Your task to perform on an android device: change keyboard looks Image 0: 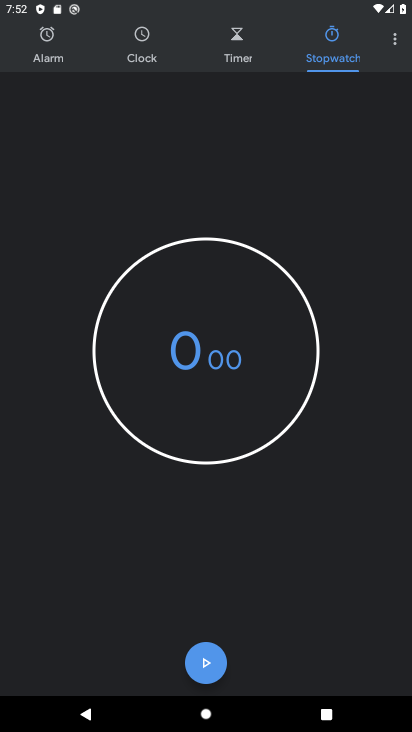
Step 0: press home button
Your task to perform on an android device: change keyboard looks Image 1: 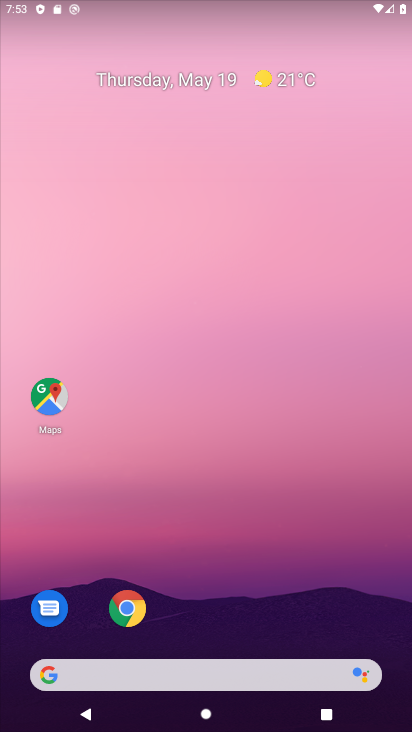
Step 1: drag from (215, 506) to (121, 156)
Your task to perform on an android device: change keyboard looks Image 2: 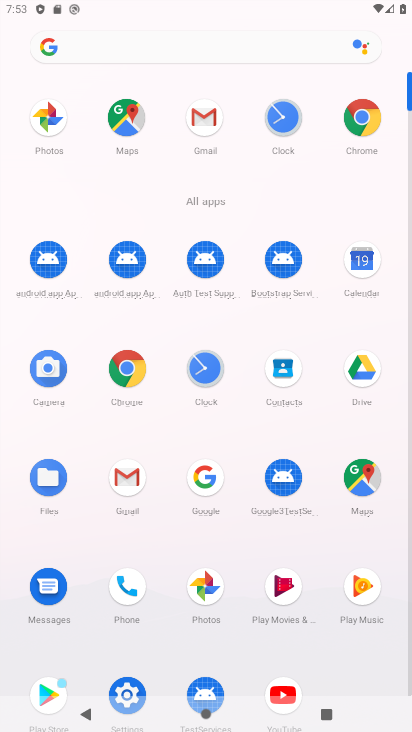
Step 2: click (125, 686)
Your task to perform on an android device: change keyboard looks Image 3: 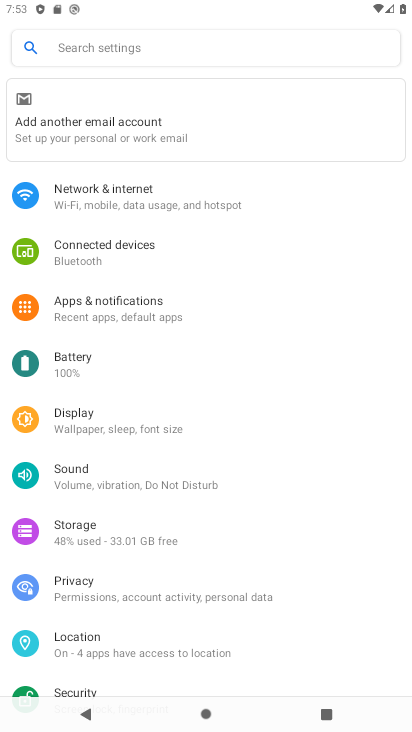
Step 3: drag from (158, 518) to (108, 197)
Your task to perform on an android device: change keyboard looks Image 4: 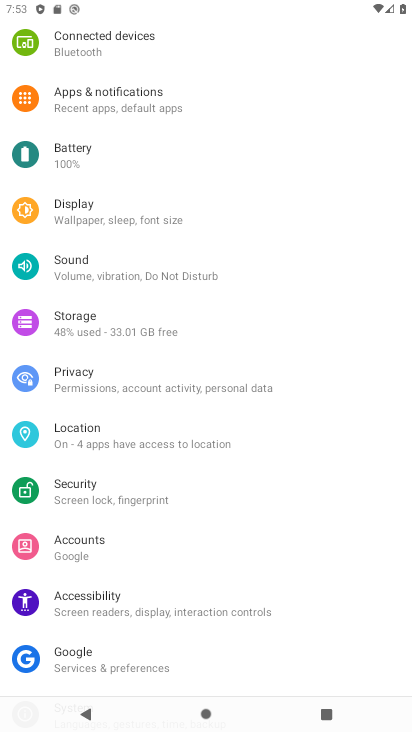
Step 4: drag from (237, 501) to (200, 106)
Your task to perform on an android device: change keyboard looks Image 5: 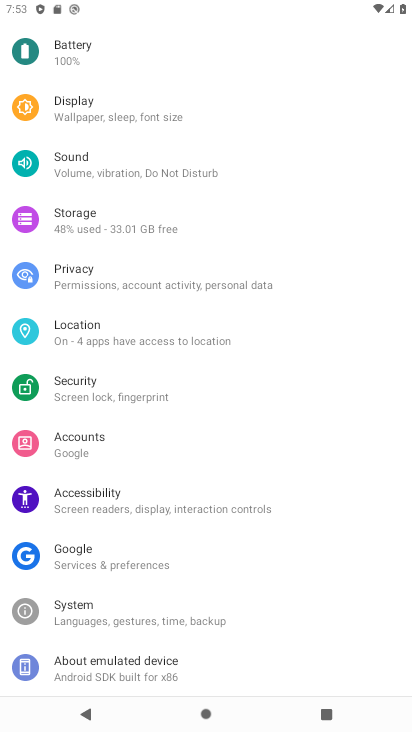
Step 5: drag from (252, 456) to (221, 234)
Your task to perform on an android device: change keyboard looks Image 6: 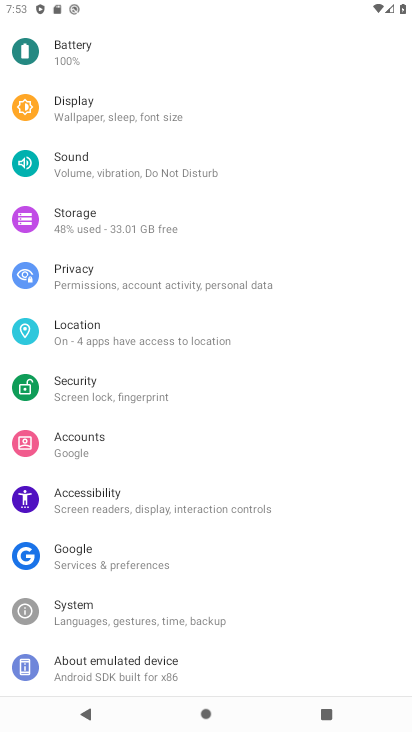
Step 6: drag from (172, 583) to (120, 214)
Your task to perform on an android device: change keyboard looks Image 7: 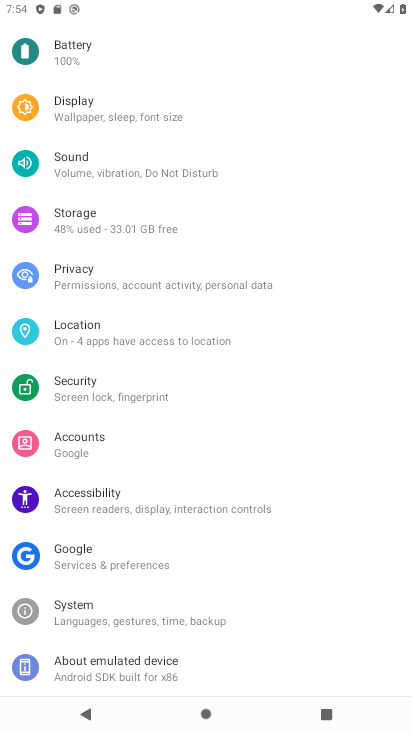
Step 7: click (81, 603)
Your task to perform on an android device: change keyboard looks Image 8: 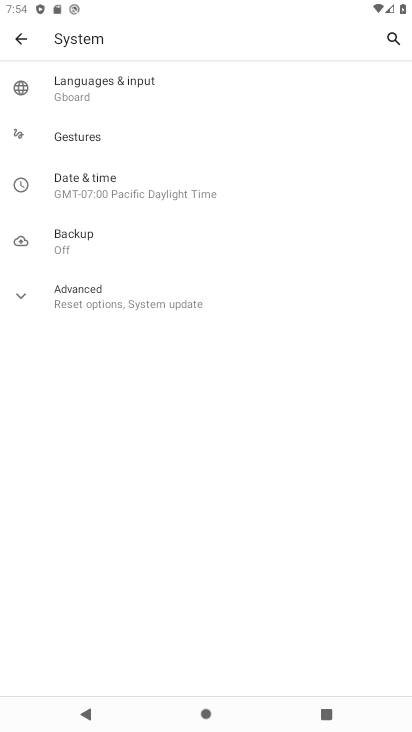
Step 8: click (72, 83)
Your task to perform on an android device: change keyboard looks Image 9: 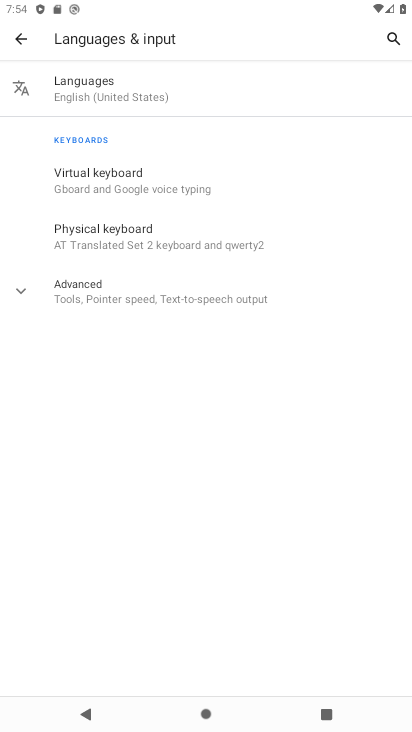
Step 9: click (90, 81)
Your task to perform on an android device: change keyboard looks Image 10: 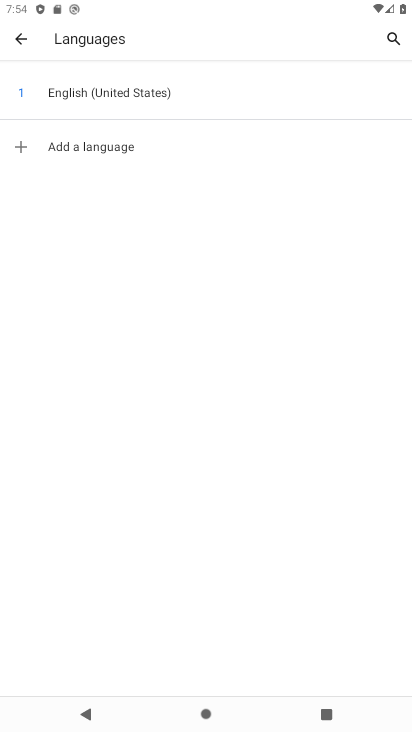
Step 10: click (9, 28)
Your task to perform on an android device: change keyboard looks Image 11: 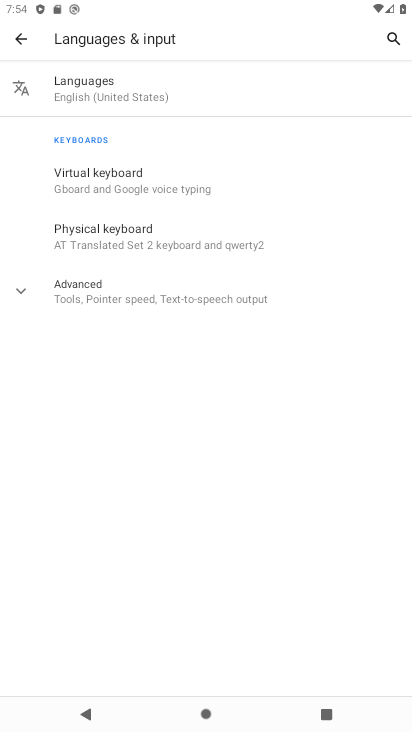
Step 11: click (111, 181)
Your task to perform on an android device: change keyboard looks Image 12: 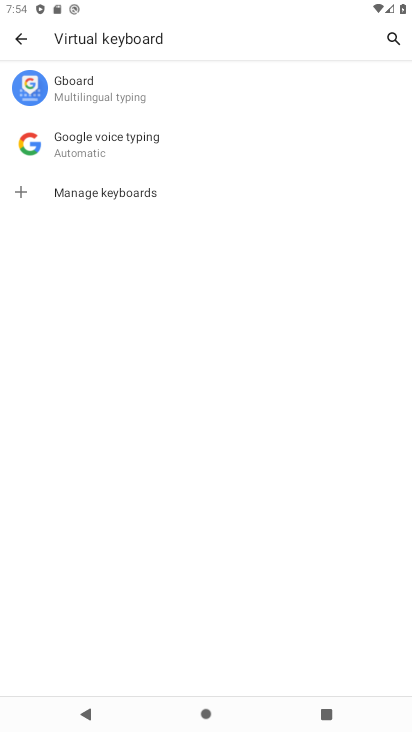
Step 12: click (86, 81)
Your task to perform on an android device: change keyboard looks Image 13: 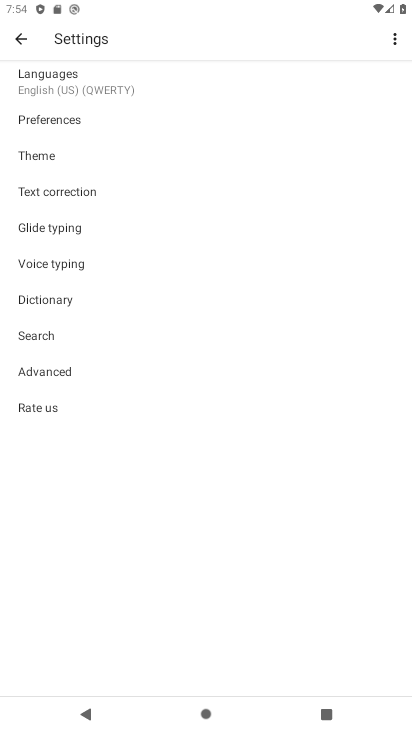
Step 13: click (24, 154)
Your task to perform on an android device: change keyboard looks Image 14: 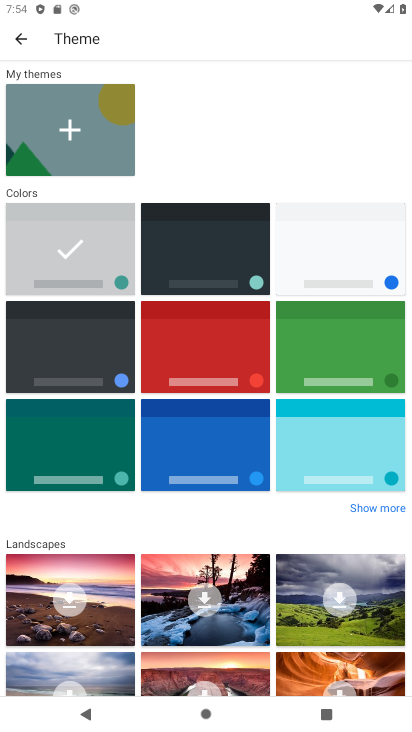
Step 14: click (227, 352)
Your task to perform on an android device: change keyboard looks Image 15: 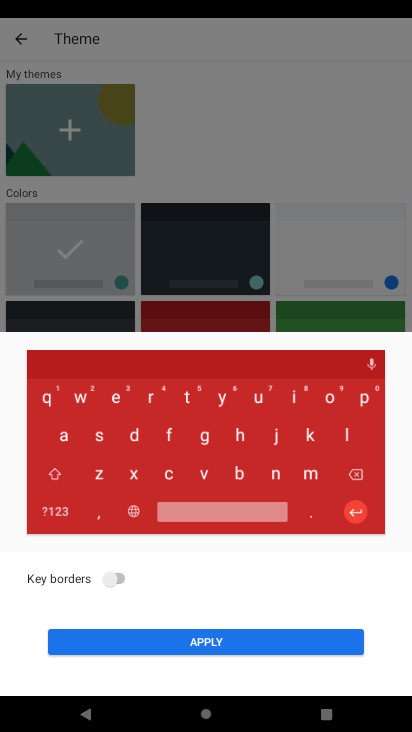
Step 15: click (198, 650)
Your task to perform on an android device: change keyboard looks Image 16: 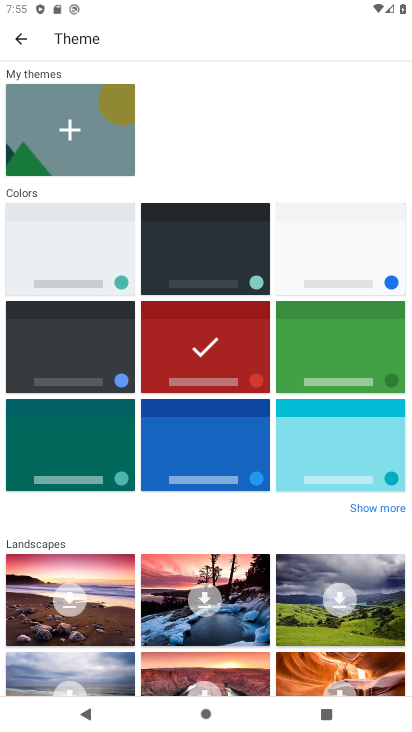
Step 16: task complete